Your task to perform on an android device: find which apps use the phone's location Image 0: 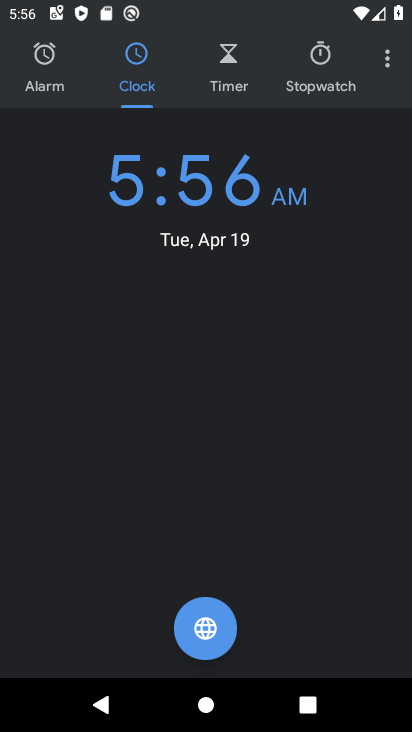
Step 0: press home button
Your task to perform on an android device: find which apps use the phone's location Image 1: 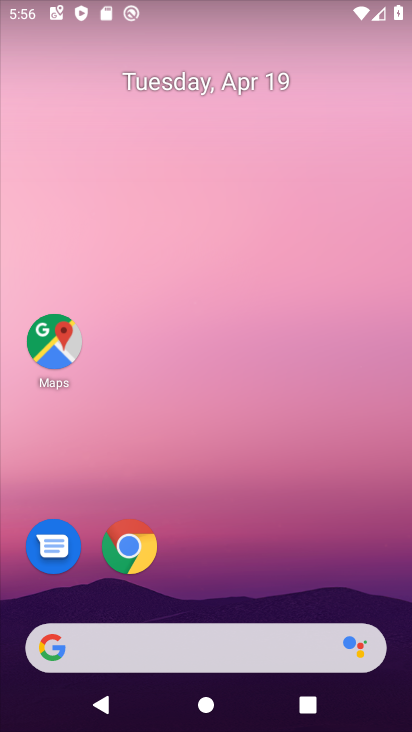
Step 1: drag from (275, 552) to (285, 91)
Your task to perform on an android device: find which apps use the phone's location Image 2: 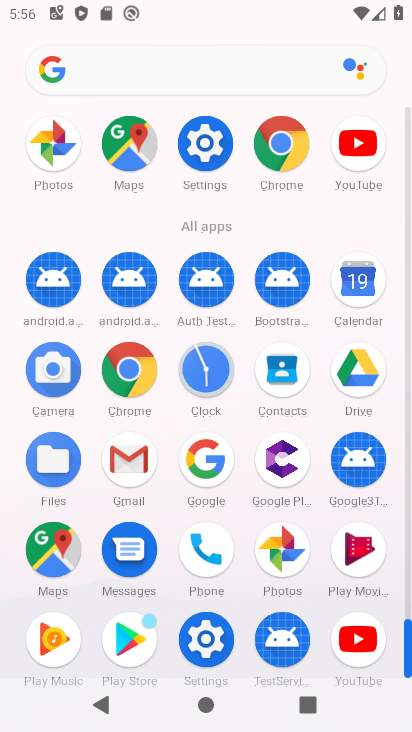
Step 2: click (205, 646)
Your task to perform on an android device: find which apps use the phone's location Image 3: 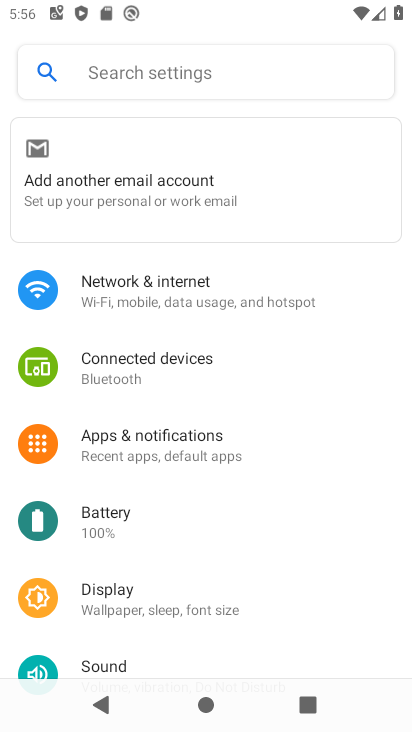
Step 3: drag from (206, 610) to (292, 77)
Your task to perform on an android device: find which apps use the phone's location Image 4: 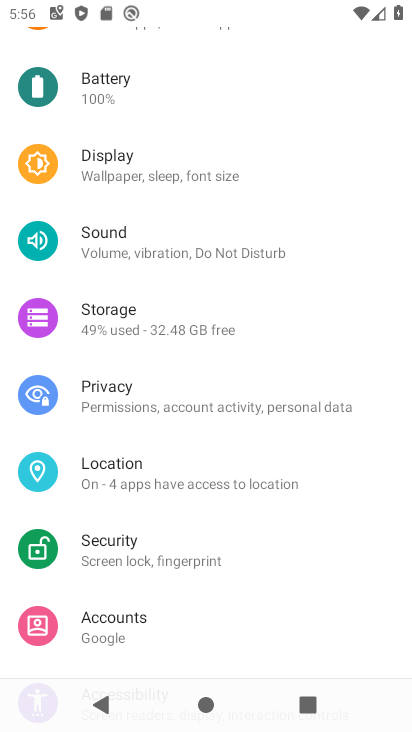
Step 4: click (109, 484)
Your task to perform on an android device: find which apps use the phone's location Image 5: 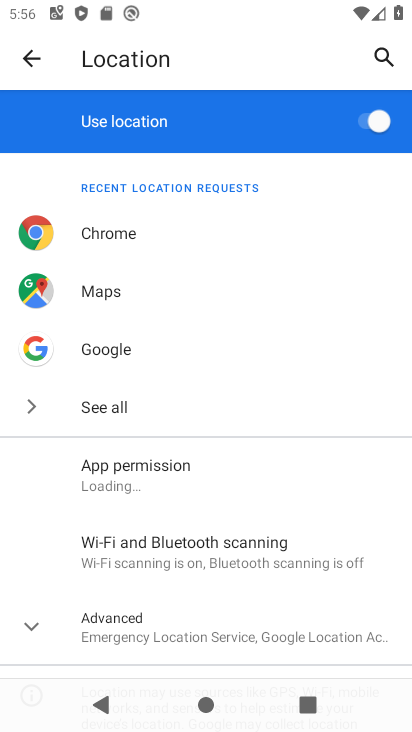
Step 5: click (122, 482)
Your task to perform on an android device: find which apps use the phone's location Image 6: 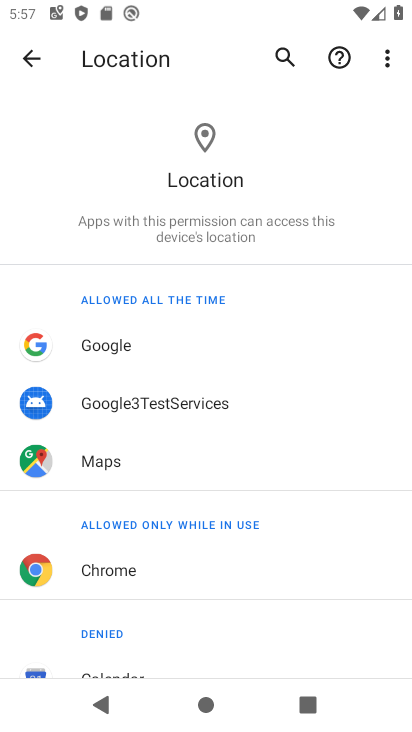
Step 6: task complete